Your task to perform on an android device: refresh tabs in the chrome app Image 0: 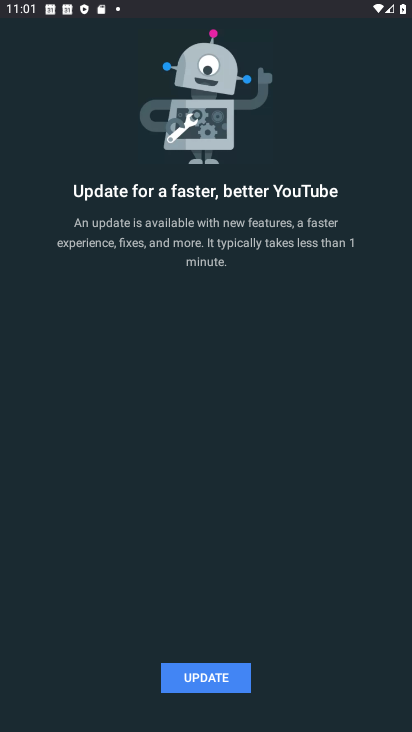
Step 0: click (214, 330)
Your task to perform on an android device: refresh tabs in the chrome app Image 1: 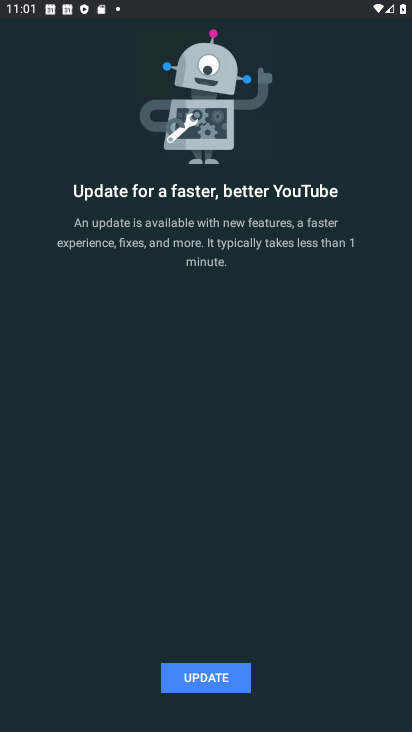
Step 1: click (277, 150)
Your task to perform on an android device: refresh tabs in the chrome app Image 2: 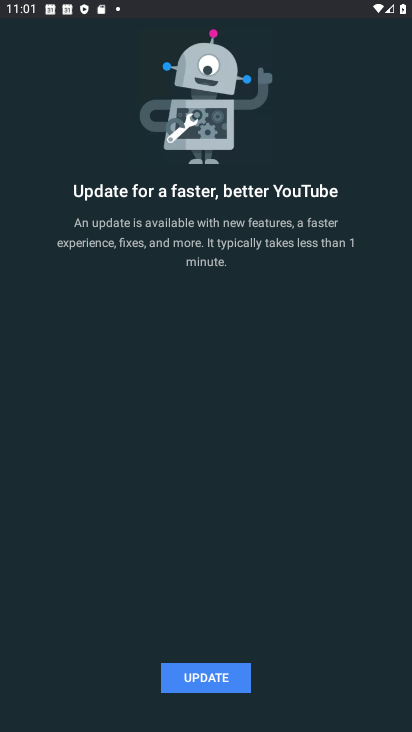
Step 2: click (253, 146)
Your task to perform on an android device: refresh tabs in the chrome app Image 3: 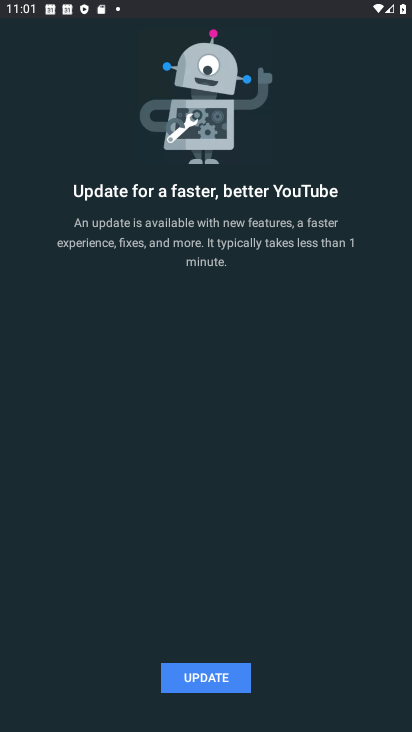
Step 3: click (205, 122)
Your task to perform on an android device: refresh tabs in the chrome app Image 4: 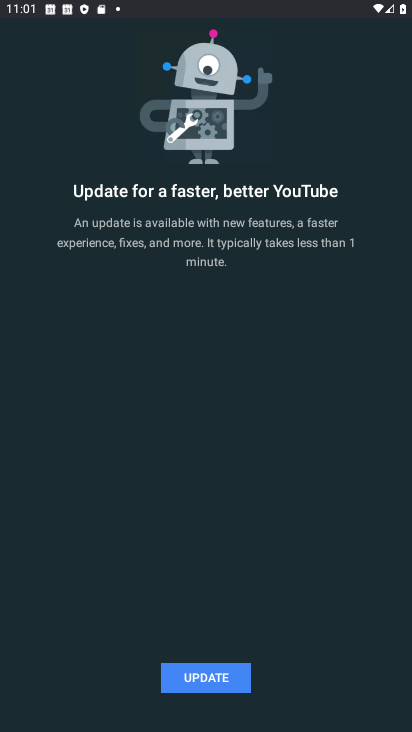
Step 4: click (205, 122)
Your task to perform on an android device: refresh tabs in the chrome app Image 5: 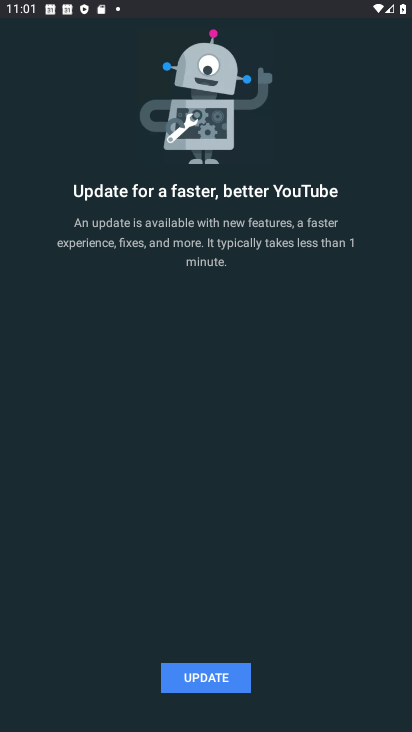
Step 5: click (204, 122)
Your task to perform on an android device: refresh tabs in the chrome app Image 6: 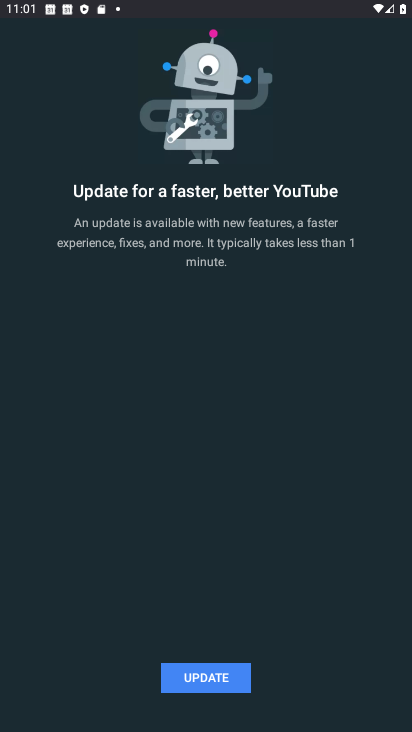
Step 6: click (200, 115)
Your task to perform on an android device: refresh tabs in the chrome app Image 7: 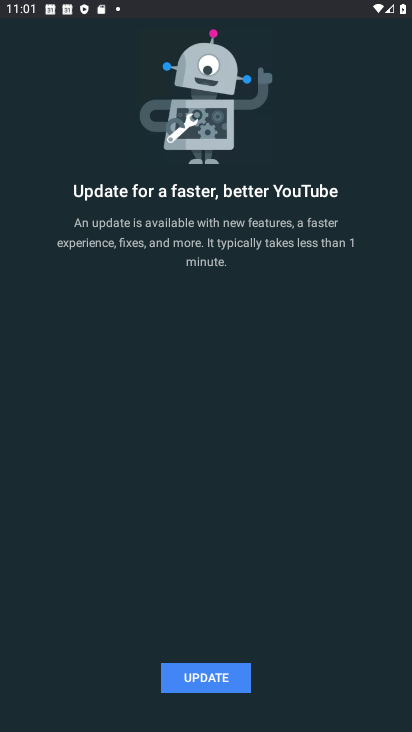
Step 7: click (204, 112)
Your task to perform on an android device: refresh tabs in the chrome app Image 8: 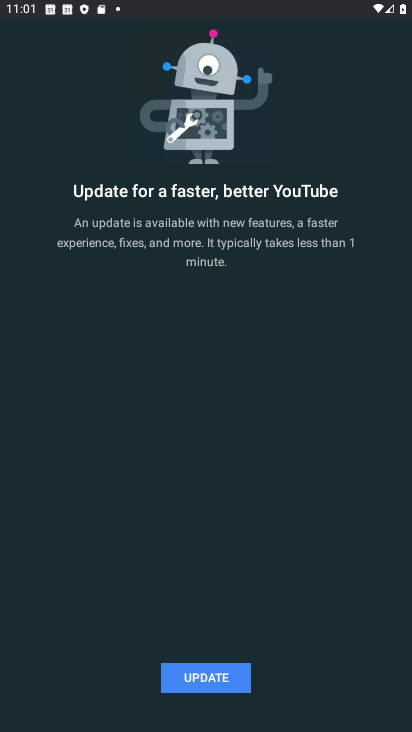
Step 8: click (200, 113)
Your task to perform on an android device: refresh tabs in the chrome app Image 9: 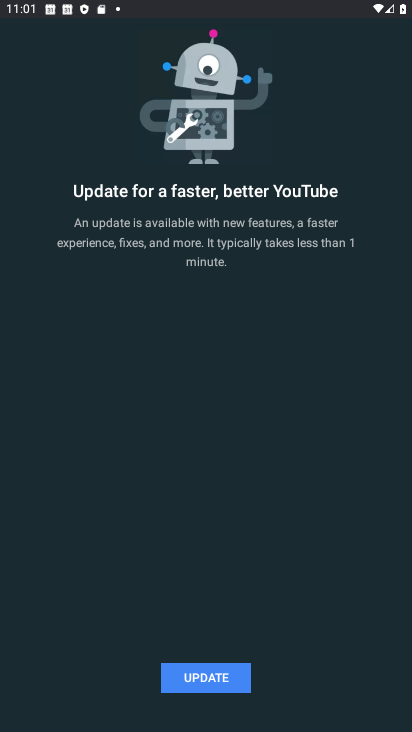
Step 9: click (200, 113)
Your task to perform on an android device: refresh tabs in the chrome app Image 10: 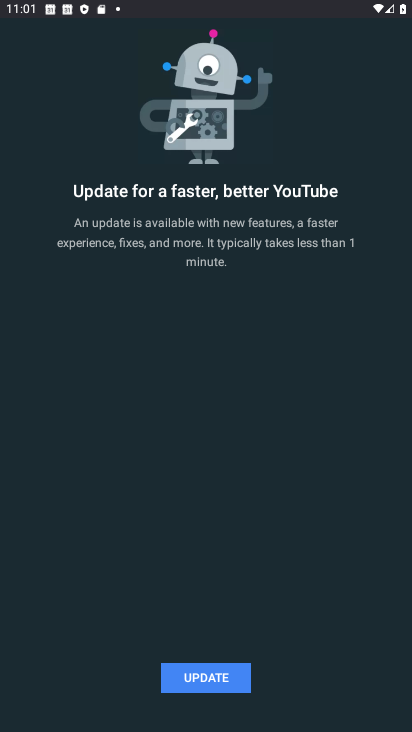
Step 10: click (200, 113)
Your task to perform on an android device: refresh tabs in the chrome app Image 11: 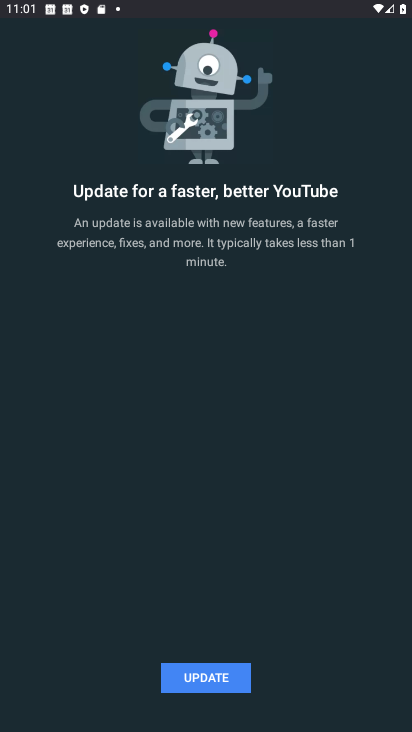
Step 11: click (200, 113)
Your task to perform on an android device: refresh tabs in the chrome app Image 12: 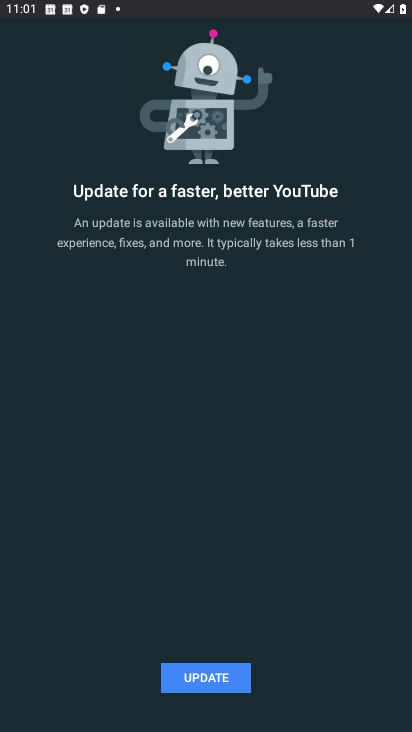
Step 12: click (200, 113)
Your task to perform on an android device: refresh tabs in the chrome app Image 13: 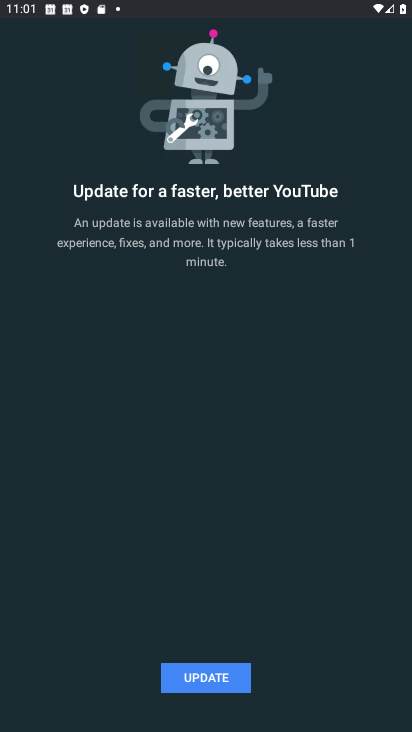
Step 13: click (199, 113)
Your task to perform on an android device: refresh tabs in the chrome app Image 14: 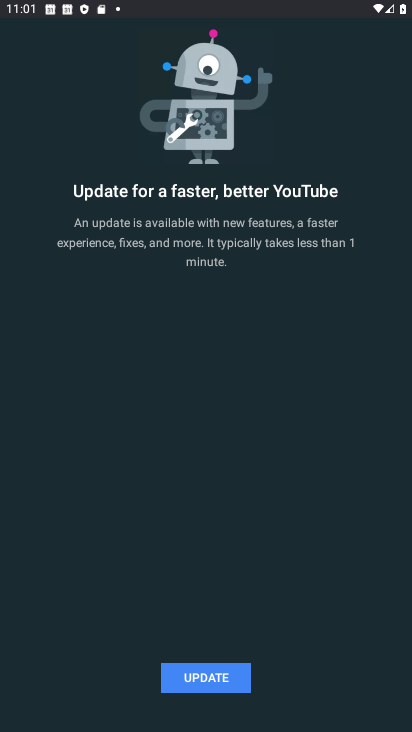
Step 14: click (199, 113)
Your task to perform on an android device: refresh tabs in the chrome app Image 15: 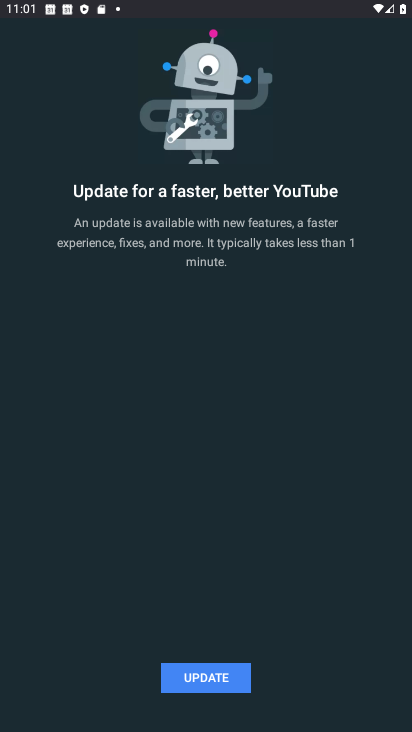
Step 15: click (199, 113)
Your task to perform on an android device: refresh tabs in the chrome app Image 16: 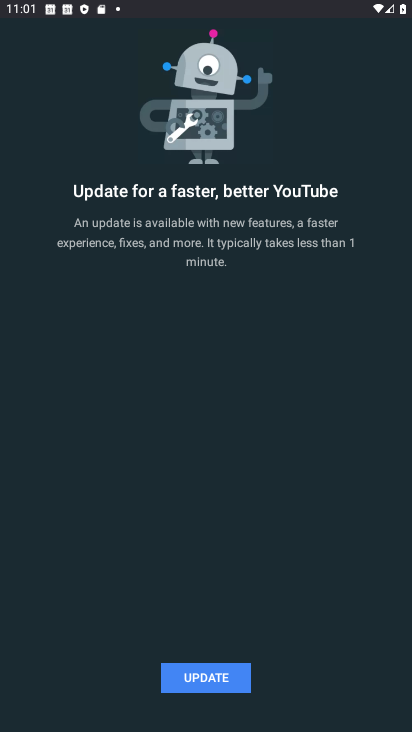
Step 16: click (200, 110)
Your task to perform on an android device: refresh tabs in the chrome app Image 17: 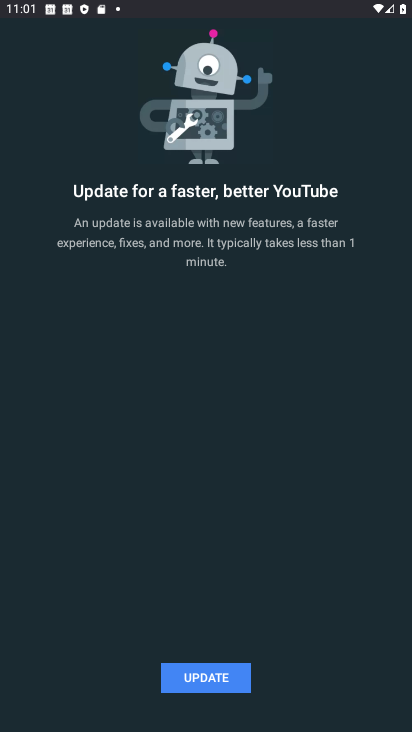
Step 17: click (342, 554)
Your task to perform on an android device: refresh tabs in the chrome app Image 18: 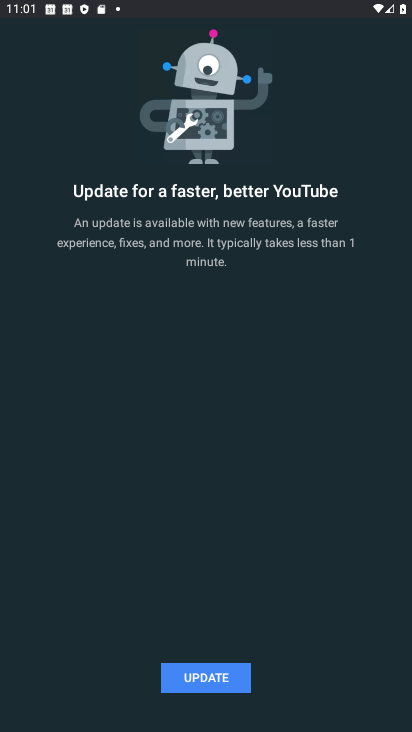
Step 18: press home button
Your task to perform on an android device: refresh tabs in the chrome app Image 19: 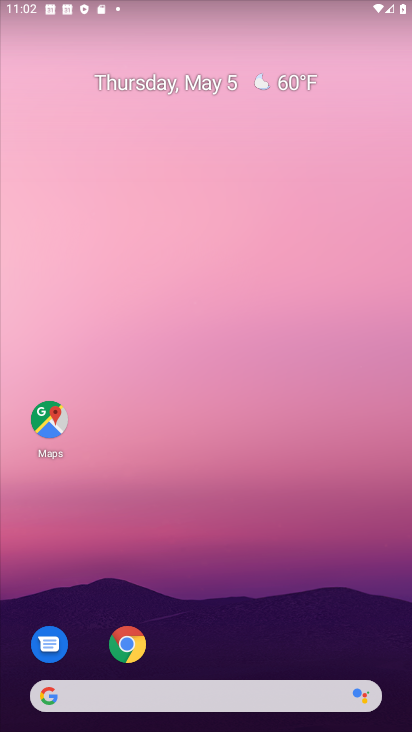
Step 19: drag from (228, 609) to (299, 94)
Your task to perform on an android device: refresh tabs in the chrome app Image 20: 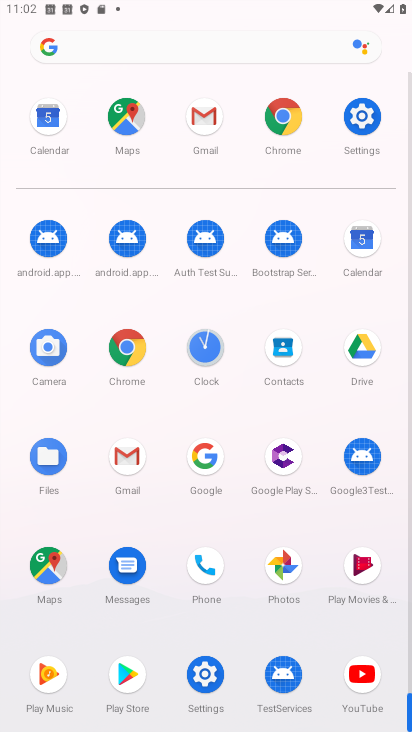
Step 20: click (283, 122)
Your task to perform on an android device: refresh tabs in the chrome app Image 21: 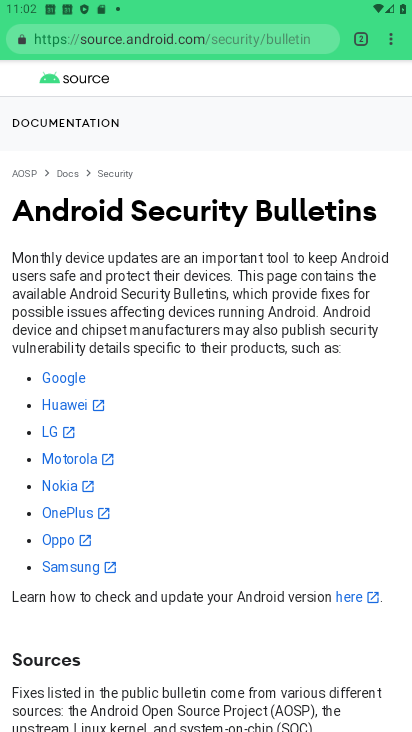
Step 21: drag from (247, 606) to (266, 22)
Your task to perform on an android device: refresh tabs in the chrome app Image 22: 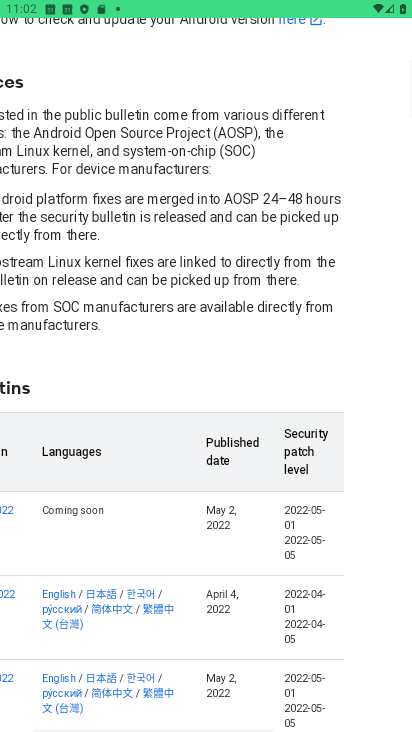
Step 22: drag from (302, 133) to (319, 405)
Your task to perform on an android device: refresh tabs in the chrome app Image 23: 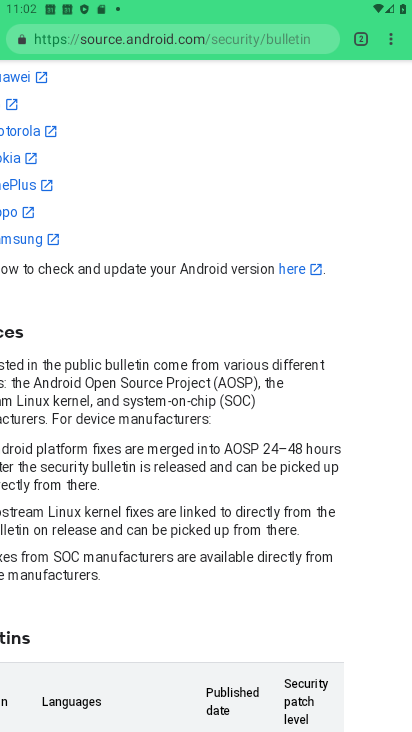
Step 23: click (395, 40)
Your task to perform on an android device: refresh tabs in the chrome app Image 24: 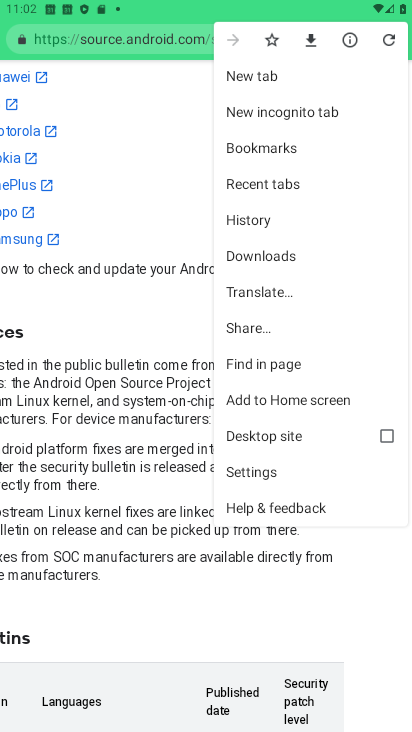
Step 24: click (395, 40)
Your task to perform on an android device: refresh tabs in the chrome app Image 25: 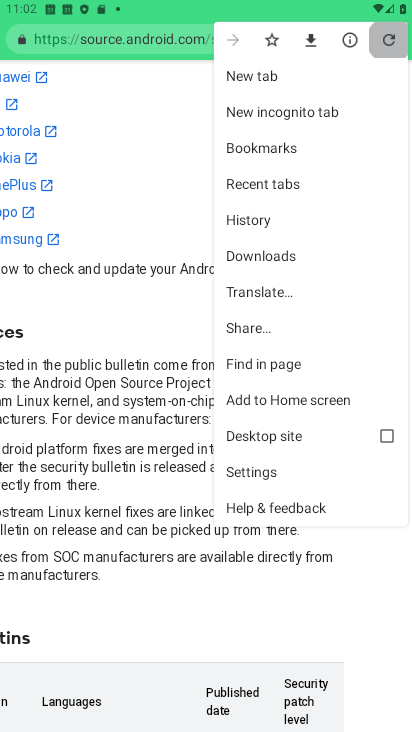
Step 25: click (395, 40)
Your task to perform on an android device: refresh tabs in the chrome app Image 26: 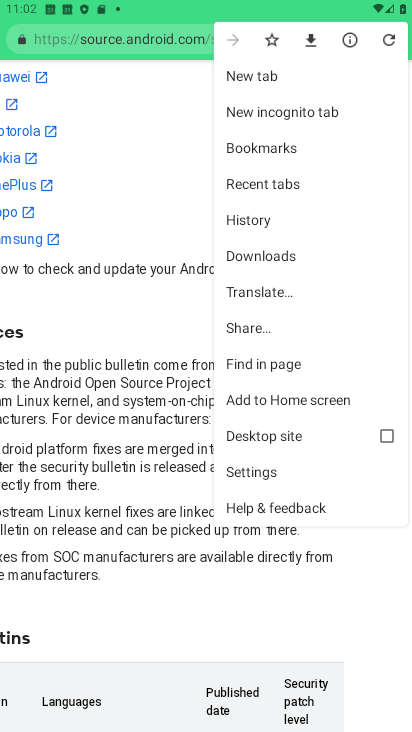
Step 26: task complete